Your task to perform on an android device: What is the news today? Image 0: 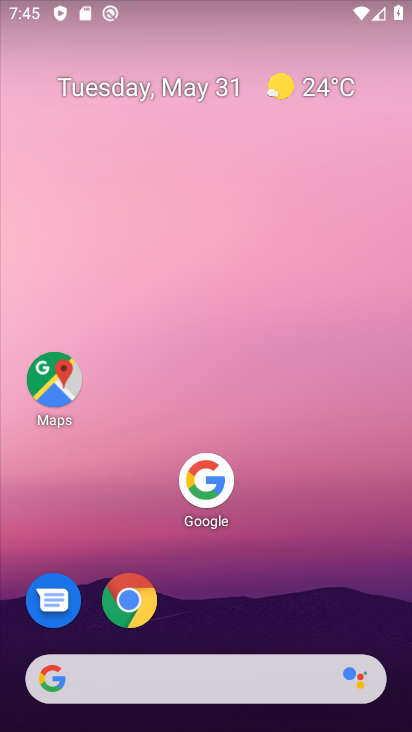
Step 0: click (64, 682)
Your task to perform on an android device: What is the news today? Image 1: 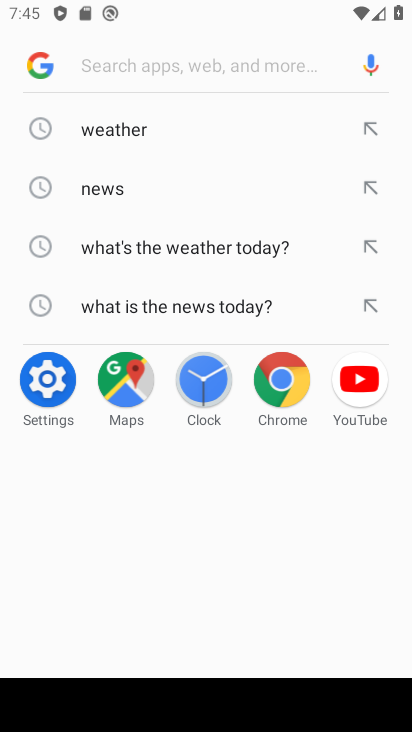
Step 1: click (146, 311)
Your task to perform on an android device: What is the news today? Image 2: 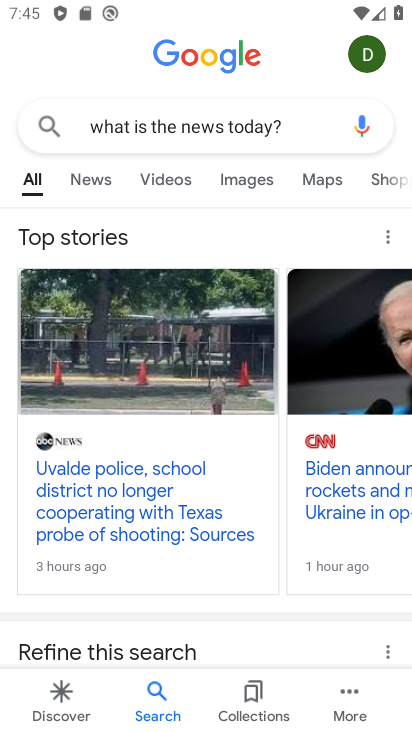
Step 2: click (93, 174)
Your task to perform on an android device: What is the news today? Image 3: 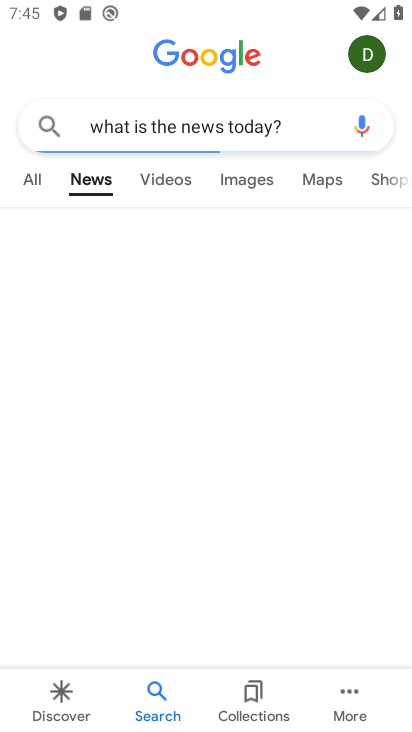
Step 3: click (92, 180)
Your task to perform on an android device: What is the news today? Image 4: 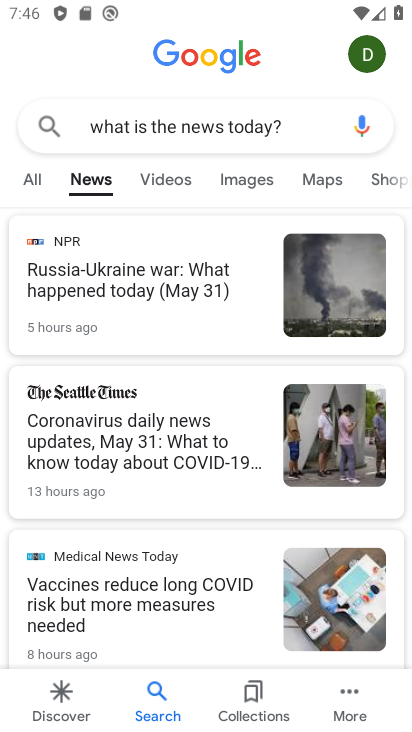
Step 4: task complete